Your task to perform on an android device: turn on bluetooth scan Image 0: 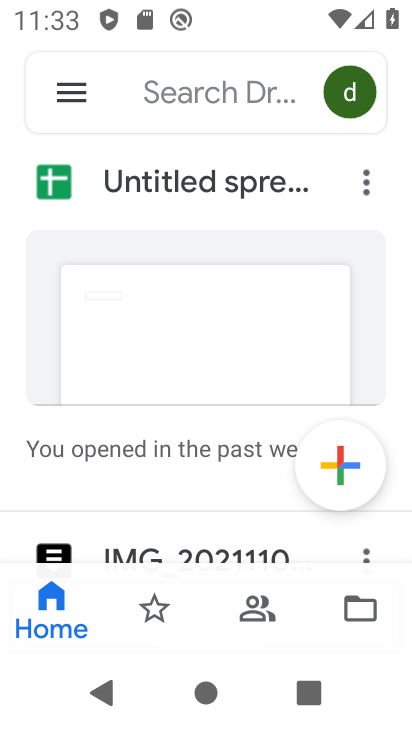
Step 0: press home button
Your task to perform on an android device: turn on bluetooth scan Image 1: 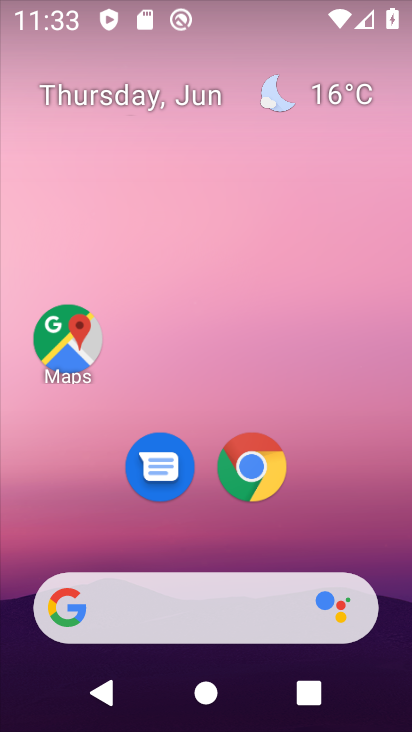
Step 1: drag from (397, 606) to (317, 51)
Your task to perform on an android device: turn on bluetooth scan Image 2: 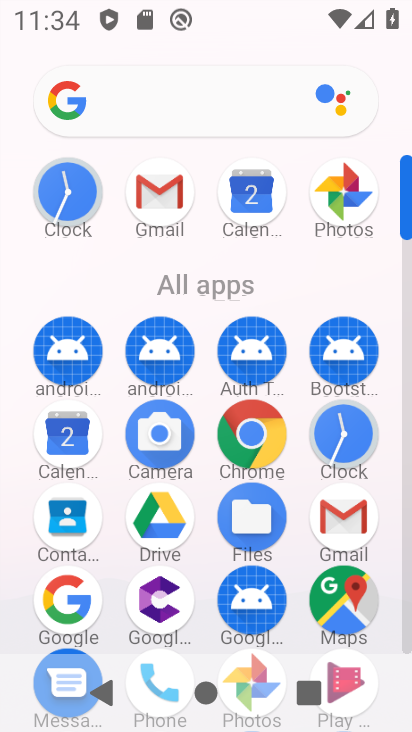
Step 2: click (406, 629)
Your task to perform on an android device: turn on bluetooth scan Image 3: 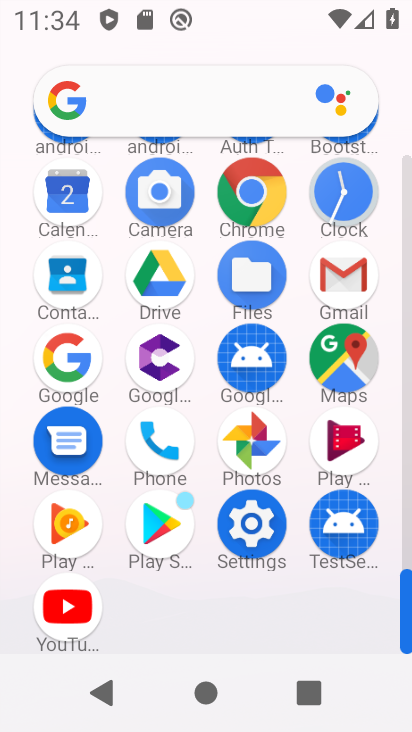
Step 3: click (251, 522)
Your task to perform on an android device: turn on bluetooth scan Image 4: 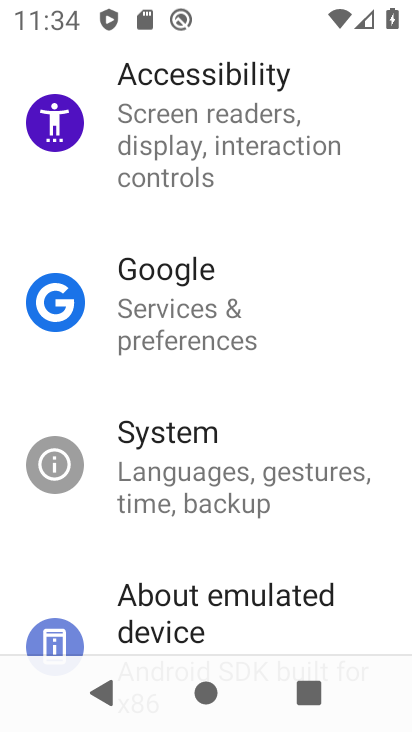
Step 4: drag from (362, 253) to (315, 651)
Your task to perform on an android device: turn on bluetooth scan Image 5: 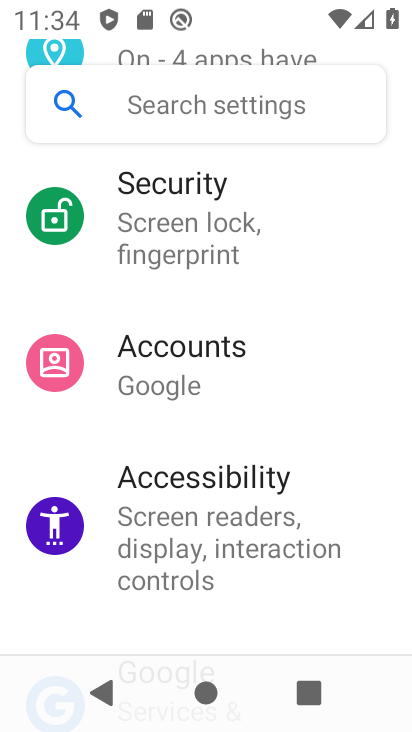
Step 5: drag from (352, 197) to (332, 499)
Your task to perform on an android device: turn on bluetooth scan Image 6: 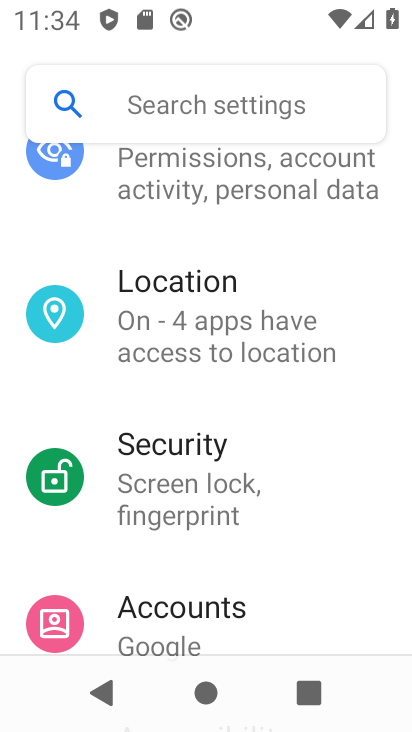
Step 6: click (149, 314)
Your task to perform on an android device: turn on bluetooth scan Image 7: 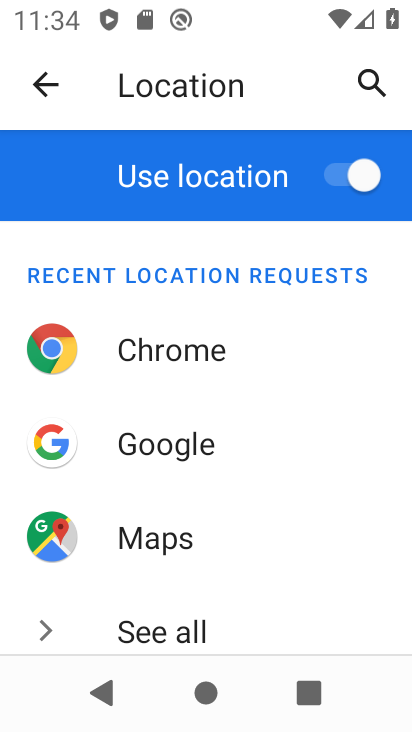
Step 7: drag from (234, 634) to (260, 201)
Your task to perform on an android device: turn on bluetooth scan Image 8: 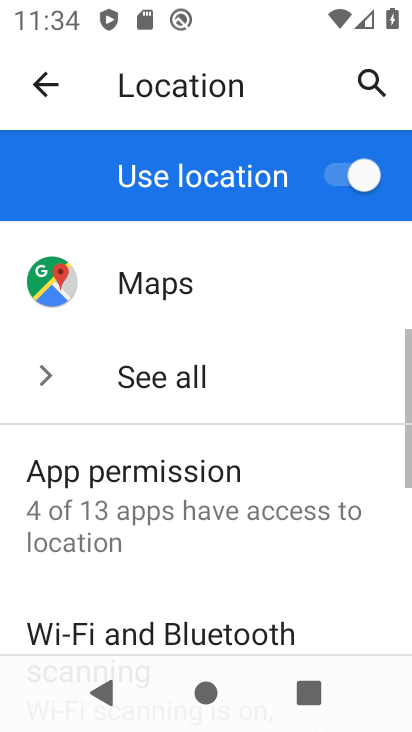
Step 8: drag from (299, 603) to (285, 346)
Your task to perform on an android device: turn on bluetooth scan Image 9: 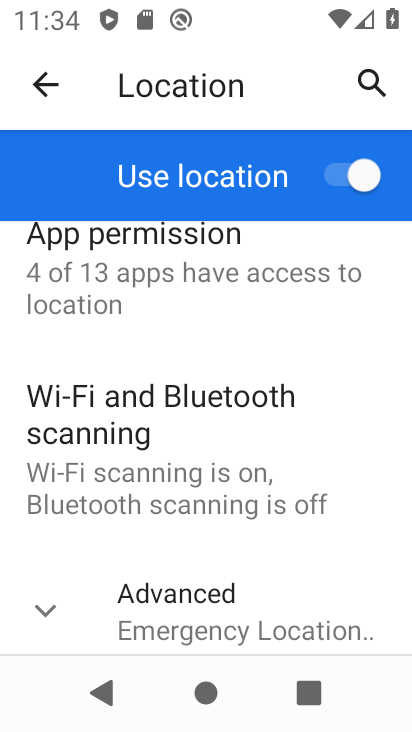
Step 9: click (86, 460)
Your task to perform on an android device: turn on bluetooth scan Image 10: 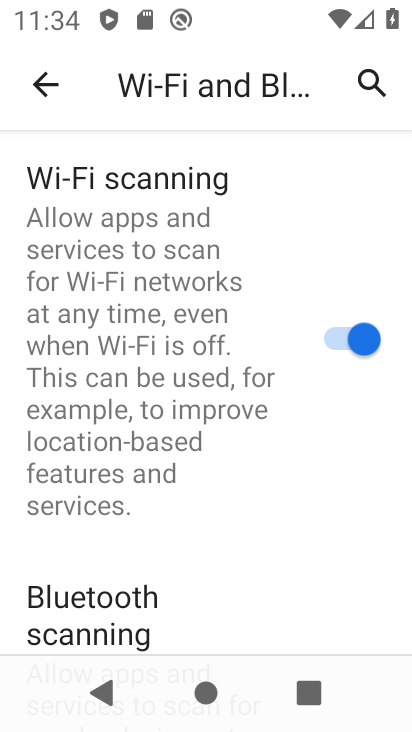
Step 10: drag from (179, 575) to (223, 282)
Your task to perform on an android device: turn on bluetooth scan Image 11: 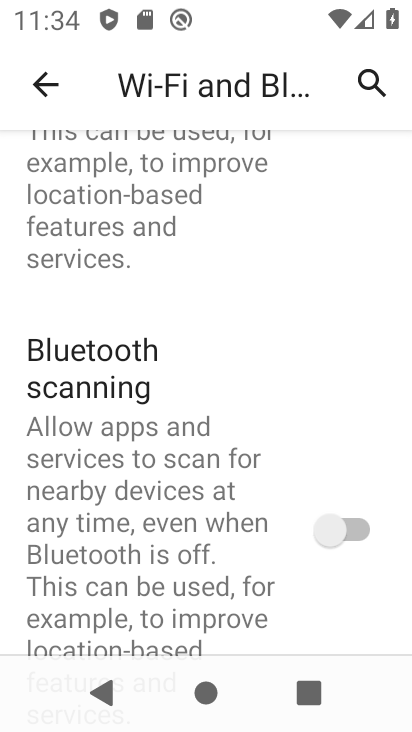
Step 11: click (358, 523)
Your task to perform on an android device: turn on bluetooth scan Image 12: 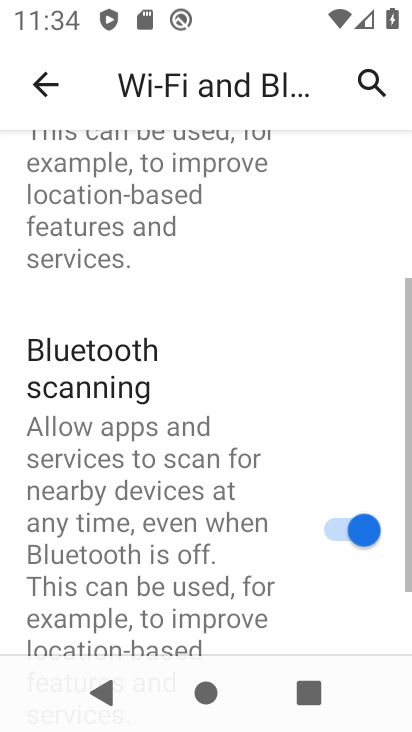
Step 12: task complete